Your task to perform on an android device: Show me the alarms in the clock app Image 0: 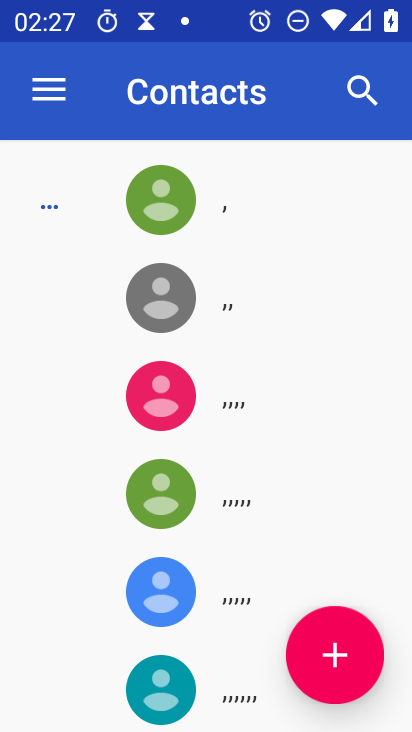
Step 0: press home button
Your task to perform on an android device: Show me the alarms in the clock app Image 1: 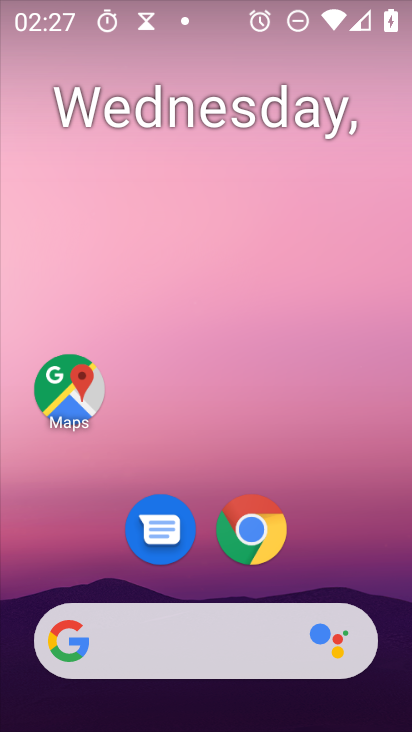
Step 1: drag from (238, 549) to (216, 82)
Your task to perform on an android device: Show me the alarms in the clock app Image 2: 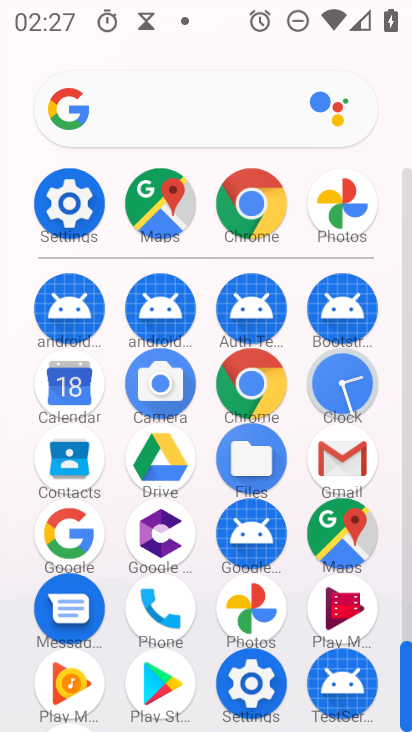
Step 2: click (356, 390)
Your task to perform on an android device: Show me the alarms in the clock app Image 3: 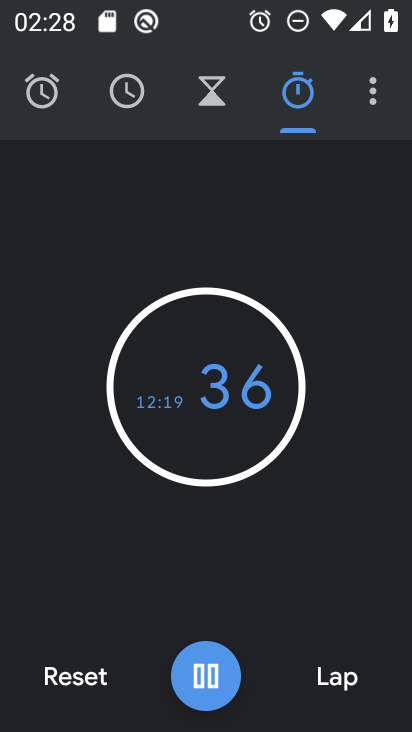
Step 3: click (46, 88)
Your task to perform on an android device: Show me the alarms in the clock app Image 4: 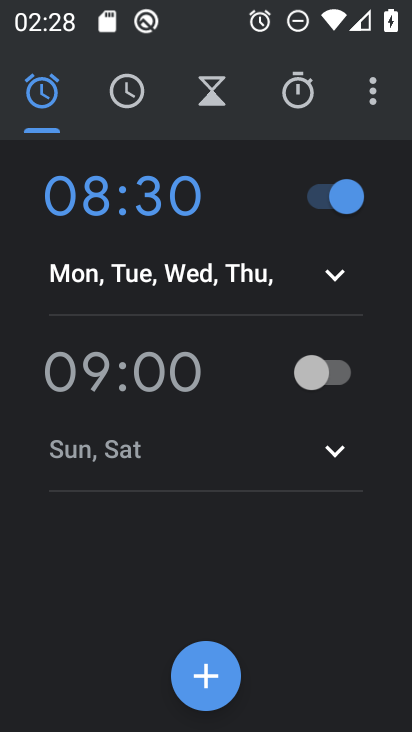
Step 4: task complete